Your task to perform on an android device: Open Google Chrome and open the bookmarks view Image 0: 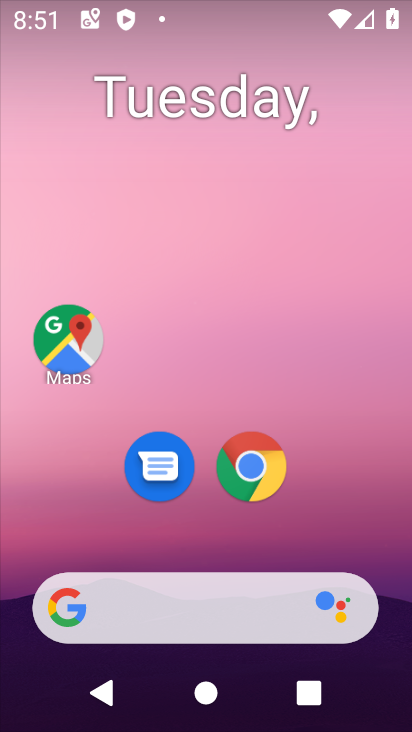
Step 0: click (275, 478)
Your task to perform on an android device: Open Google Chrome and open the bookmarks view Image 1: 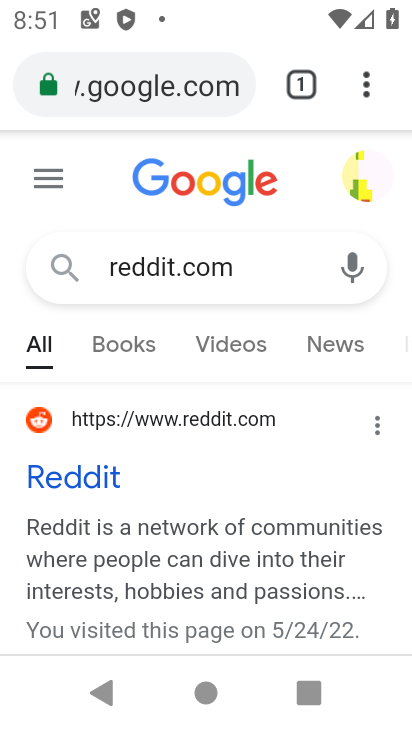
Step 1: click (366, 100)
Your task to perform on an android device: Open Google Chrome and open the bookmarks view Image 2: 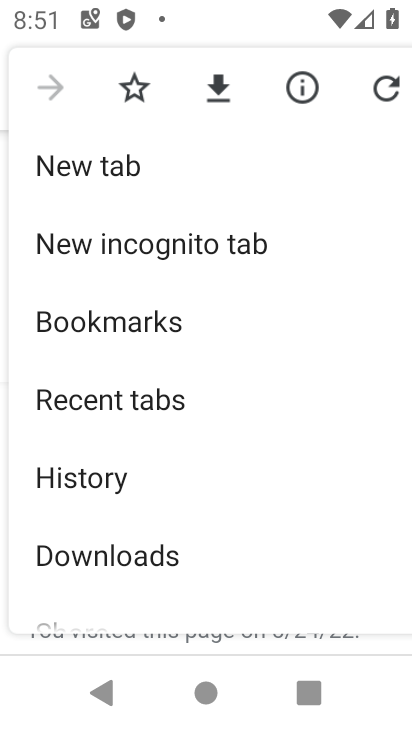
Step 2: drag from (154, 455) to (166, 411)
Your task to perform on an android device: Open Google Chrome and open the bookmarks view Image 3: 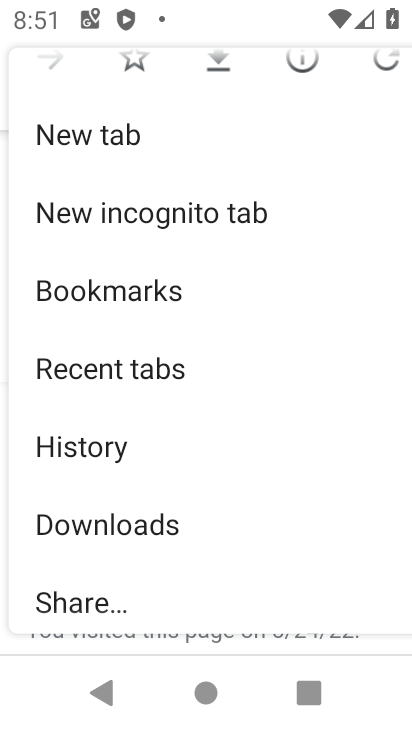
Step 3: click (172, 289)
Your task to perform on an android device: Open Google Chrome and open the bookmarks view Image 4: 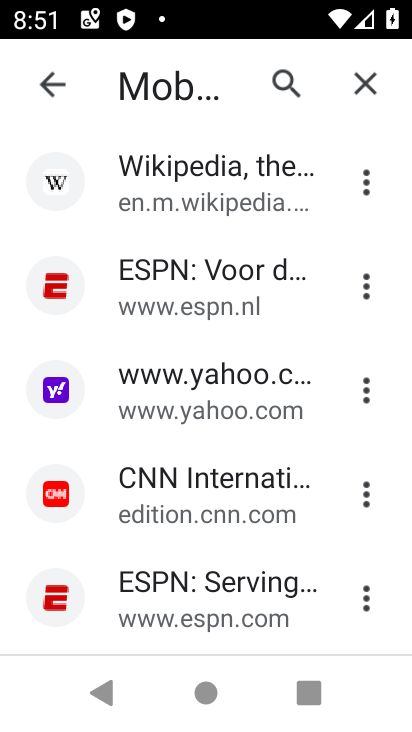
Step 4: task complete